Your task to perform on an android device: check google app version Image 0: 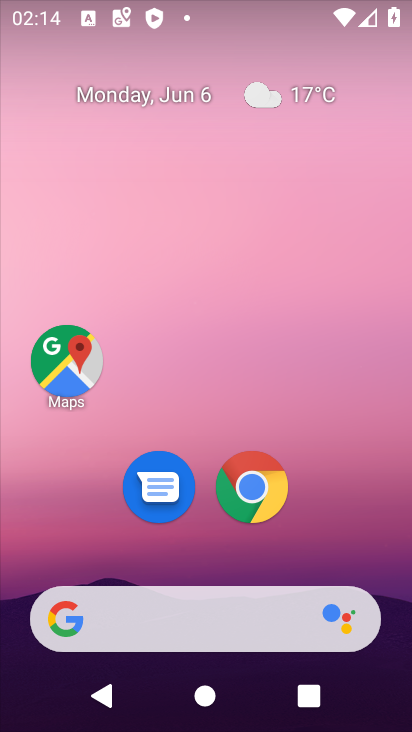
Step 0: click (396, 635)
Your task to perform on an android device: check google app version Image 1: 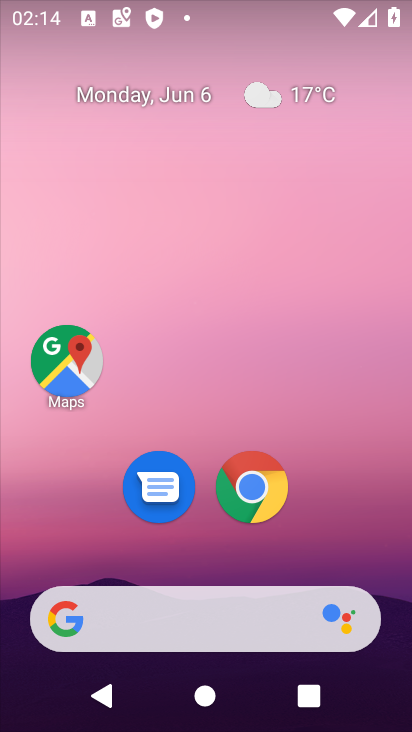
Step 1: click (253, 486)
Your task to perform on an android device: check google app version Image 2: 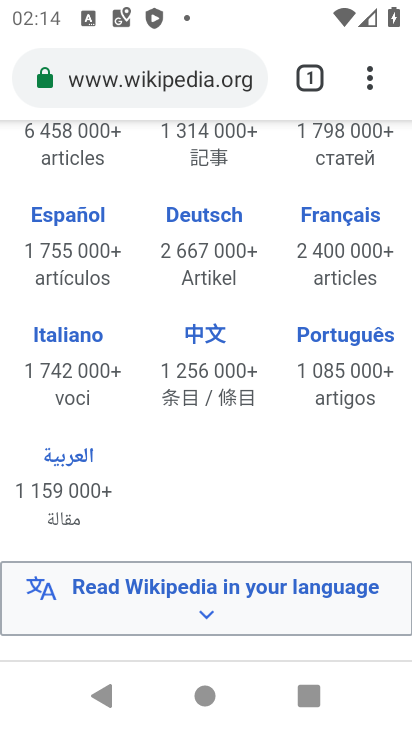
Step 2: click (366, 84)
Your task to perform on an android device: check google app version Image 3: 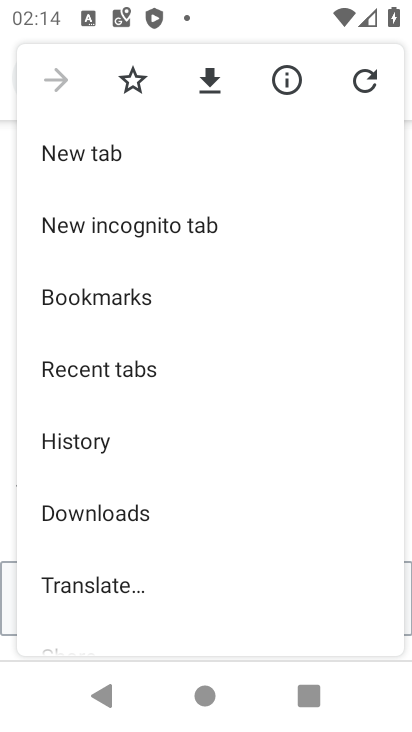
Step 3: drag from (212, 597) to (252, 206)
Your task to perform on an android device: check google app version Image 4: 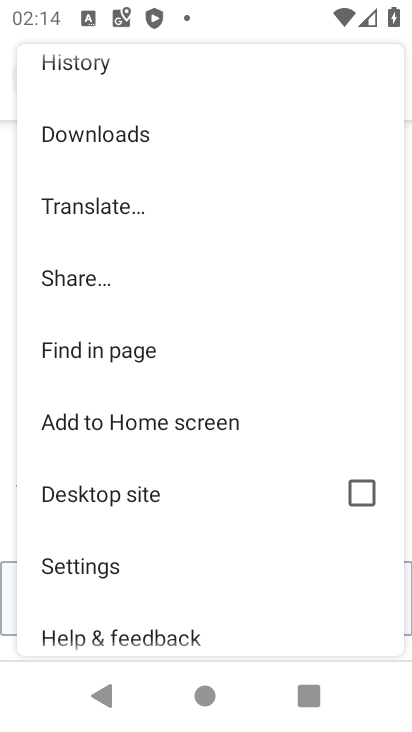
Step 4: click (86, 557)
Your task to perform on an android device: check google app version Image 5: 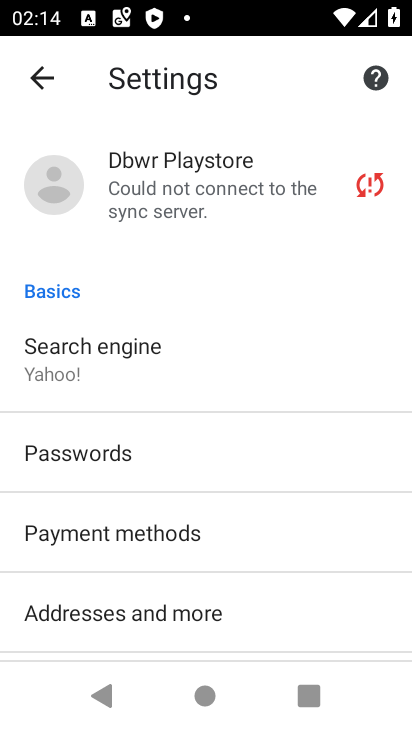
Step 5: drag from (291, 624) to (215, 165)
Your task to perform on an android device: check google app version Image 6: 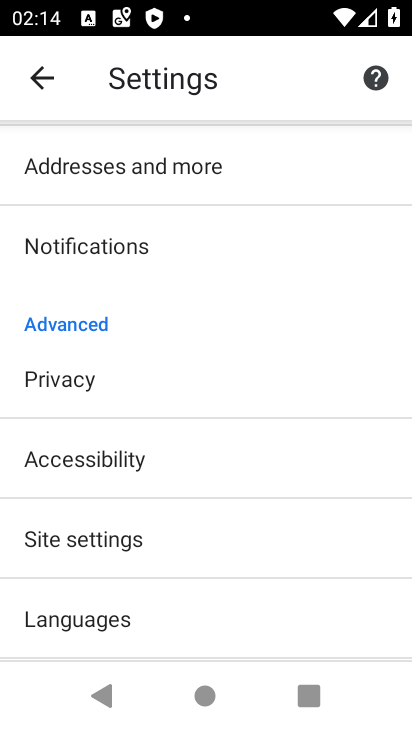
Step 6: drag from (219, 596) to (196, 171)
Your task to perform on an android device: check google app version Image 7: 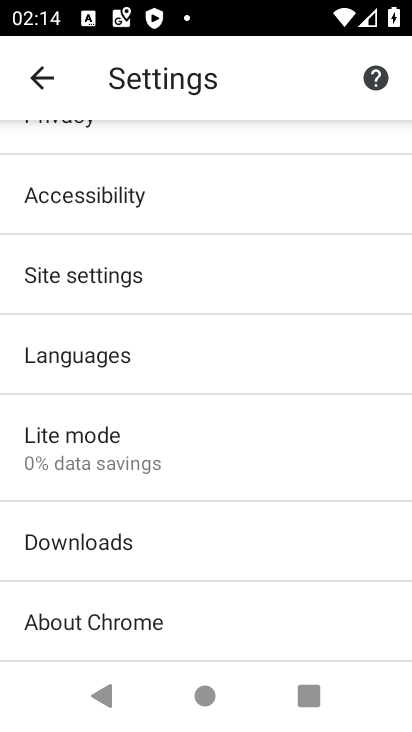
Step 7: click (101, 626)
Your task to perform on an android device: check google app version Image 8: 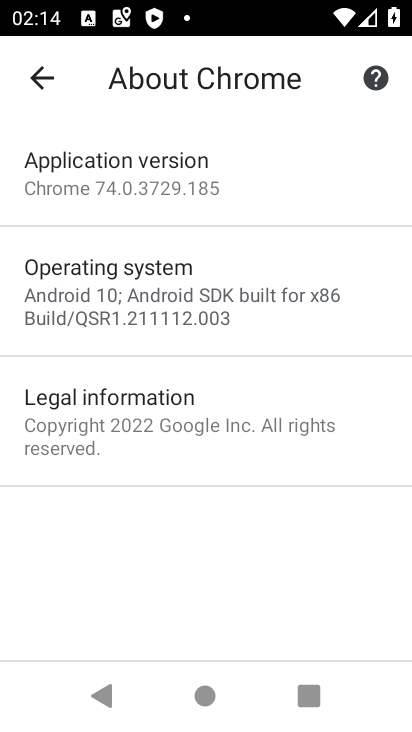
Step 8: click (132, 179)
Your task to perform on an android device: check google app version Image 9: 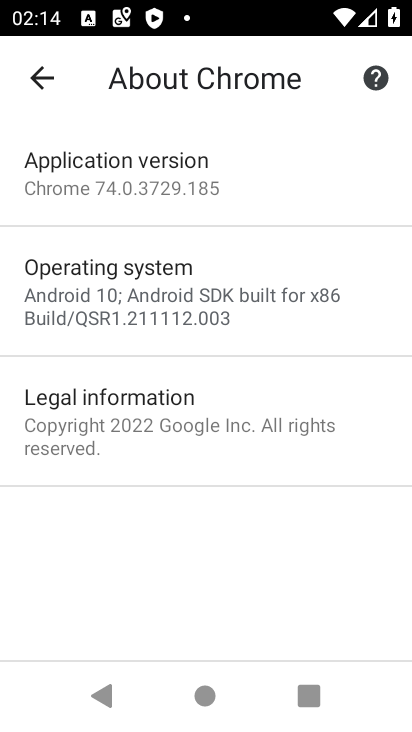
Step 9: task complete